Your task to perform on an android device: open device folders in google photos Image 0: 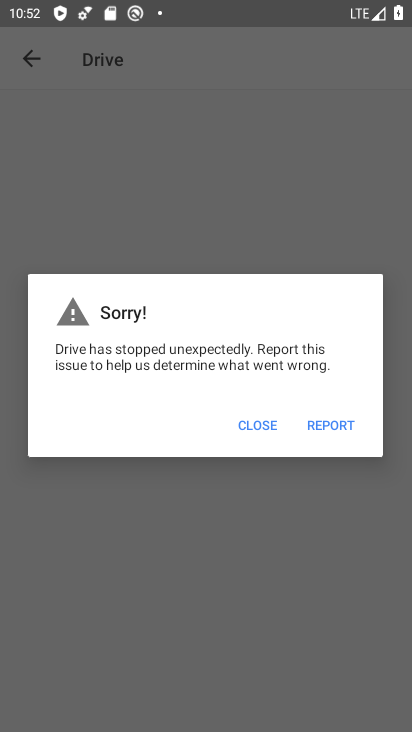
Step 0: press home button
Your task to perform on an android device: open device folders in google photos Image 1: 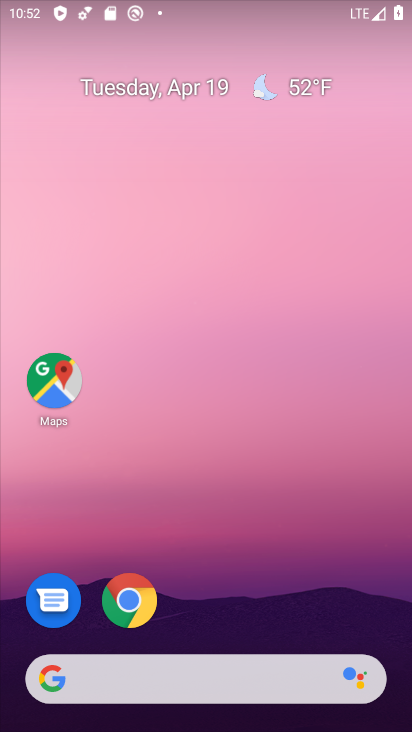
Step 1: drag from (298, 565) to (228, 25)
Your task to perform on an android device: open device folders in google photos Image 2: 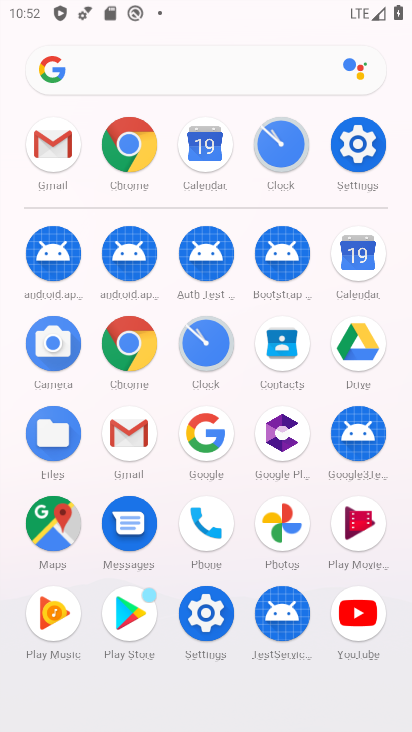
Step 2: click (268, 527)
Your task to perform on an android device: open device folders in google photos Image 3: 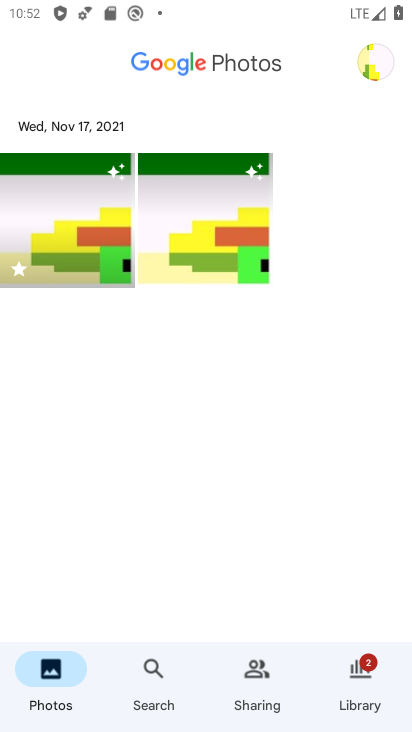
Step 3: click (378, 62)
Your task to perform on an android device: open device folders in google photos Image 4: 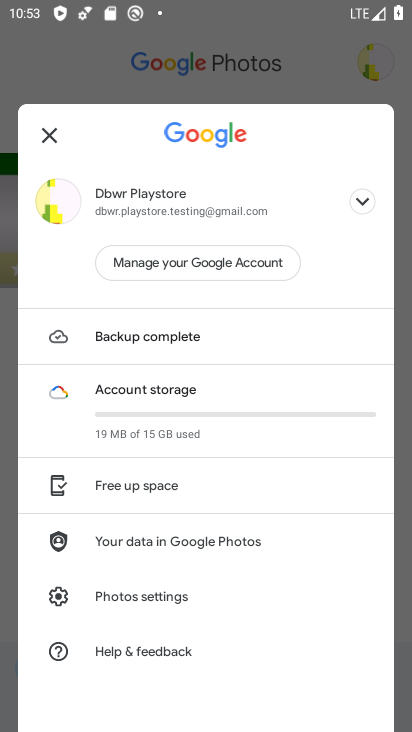
Step 4: task complete